Your task to perform on an android device: Open Maps and search for coffee Image 0: 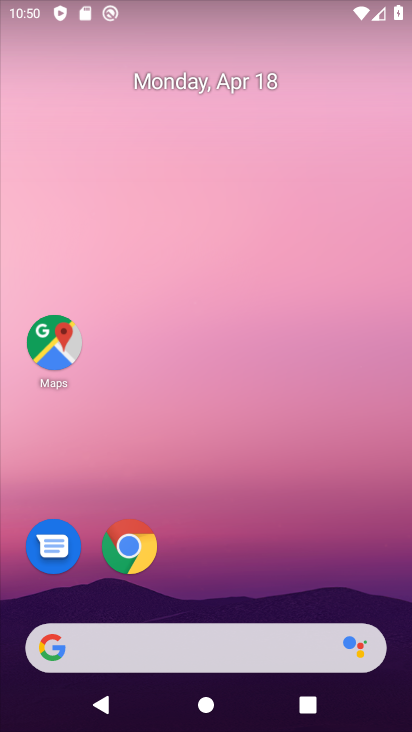
Step 0: drag from (382, 578) to (364, 108)
Your task to perform on an android device: Open Maps and search for coffee Image 1: 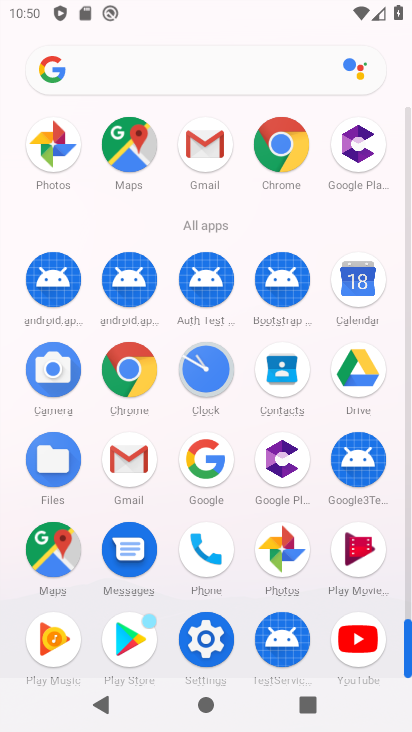
Step 1: click (49, 561)
Your task to perform on an android device: Open Maps and search for coffee Image 2: 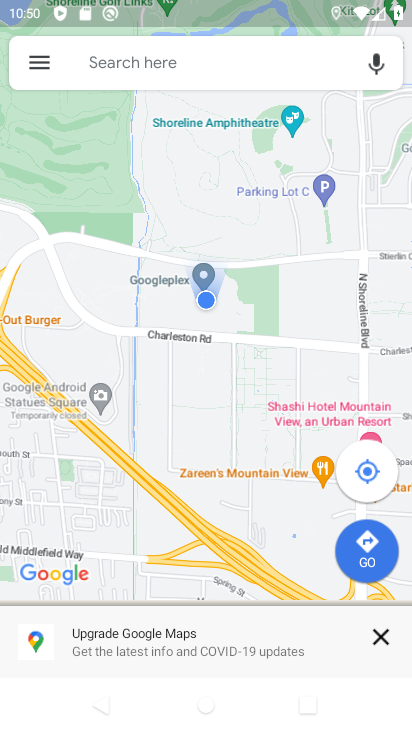
Step 2: click (217, 52)
Your task to perform on an android device: Open Maps and search for coffee Image 3: 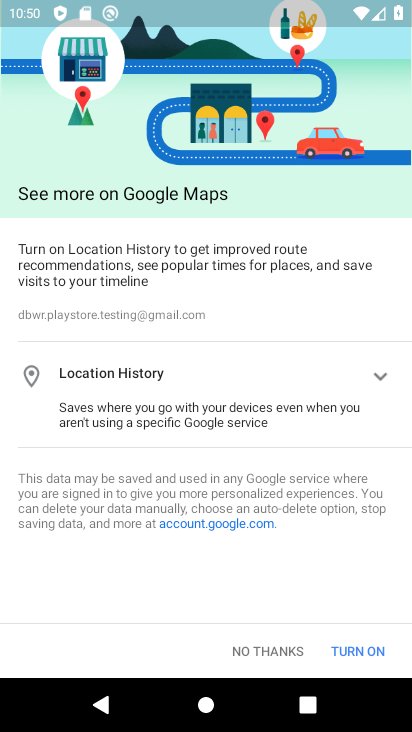
Step 3: click (251, 645)
Your task to perform on an android device: Open Maps and search for coffee Image 4: 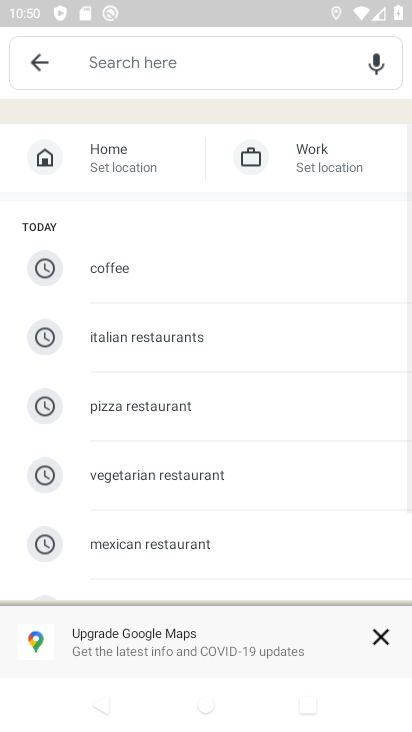
Step 4: click (201, 67)
Your task to perform on an android device: Open Maps and search for coffee Image 5: 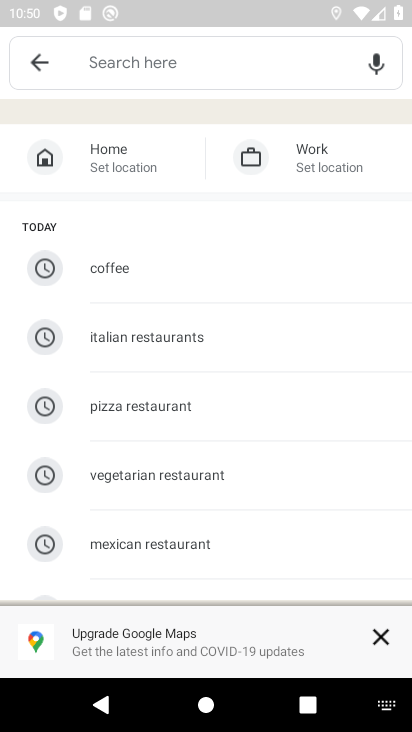
Step 5: type "coffee"
Your task to perform on an android device: Open Maps and search for coffee Image 6: 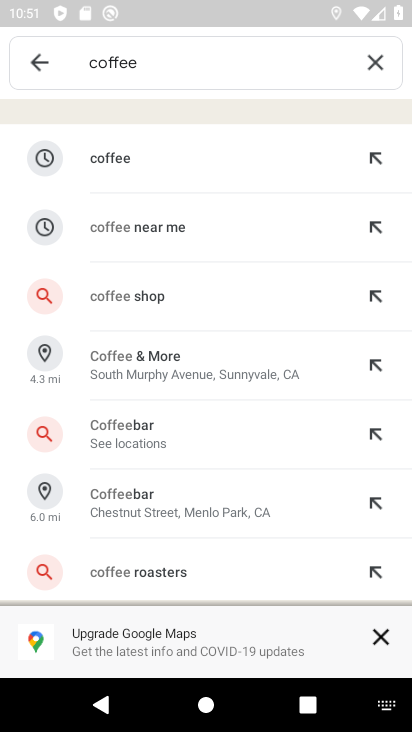
Step 6: click (210, 165)
Your task to perform on an android device: Open Maps and search for coffee Image 7: 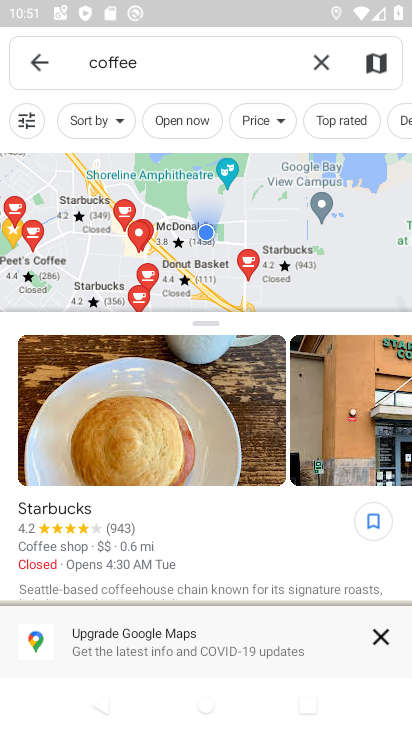
Step 7: task complete